Your task to perform on an android device: toggle data saver in the chrome app Image 0: 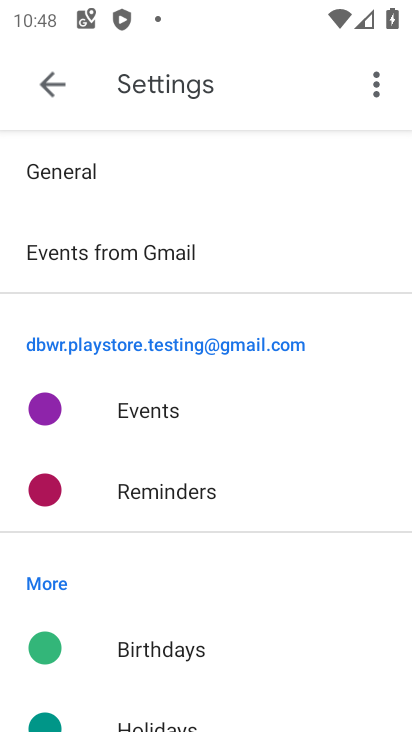
Step 0: press home button
Your task to perform on an android device: toggle data saver in the chrome app Image 1: 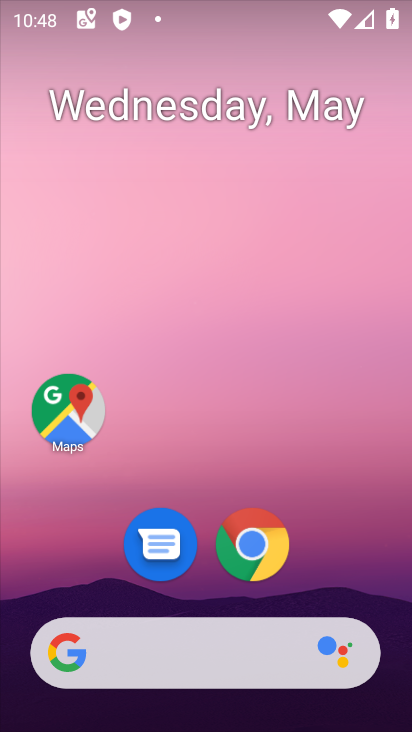
Step 1: drag from (310, 600) to (307, 80)
Your task to perform on an android device: toggle data saver in the chrome app Image 2: 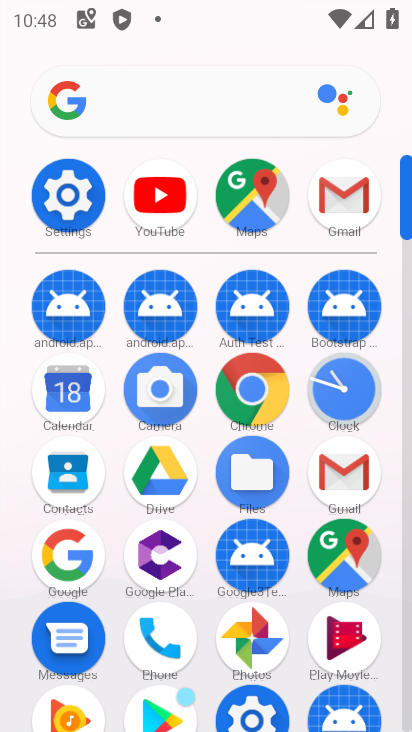
Step 2: click (236, 371)
Your task to perform on an android device: toggle data saver in the chrome app Image 3: 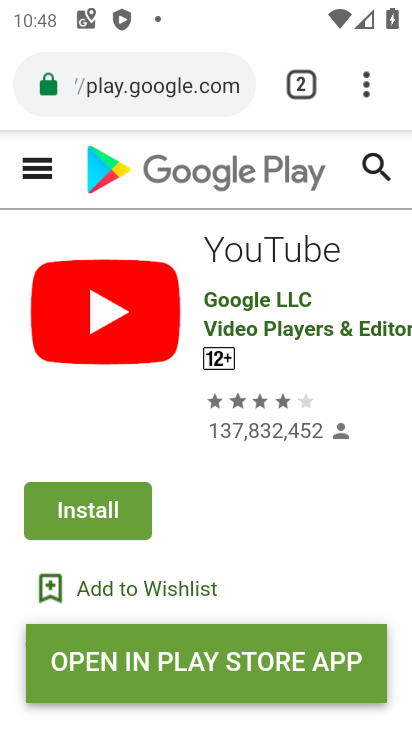
Step 3: click (371, 82)
Your task to perform on an android device: toggle data saver in the chrome app Image 4: 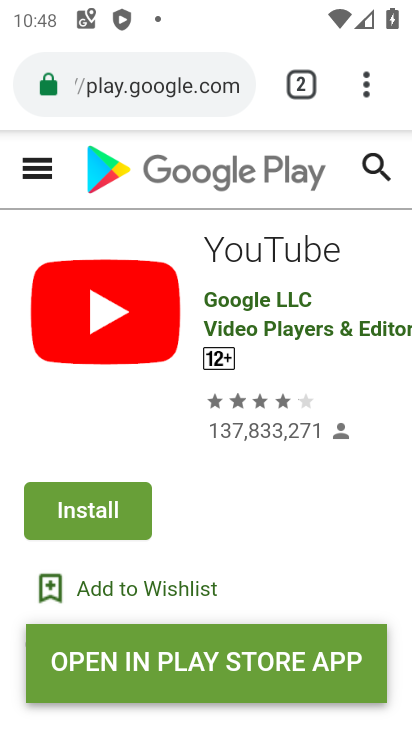
Step 4: drag from (370, 88) to (96, 589)
Your task to perform on an android device: toggle data saver in the chrome app Image 5: 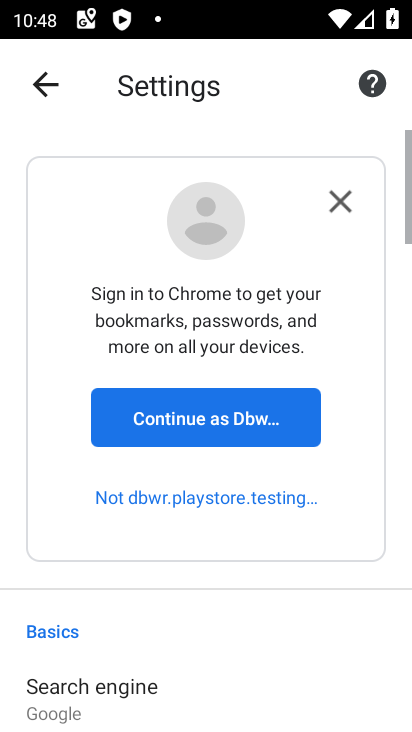
Step 5: drag from (185, 636) to (227, 211)
Your task to perform on an android device: toggle data saver in the chrome app Image 6: 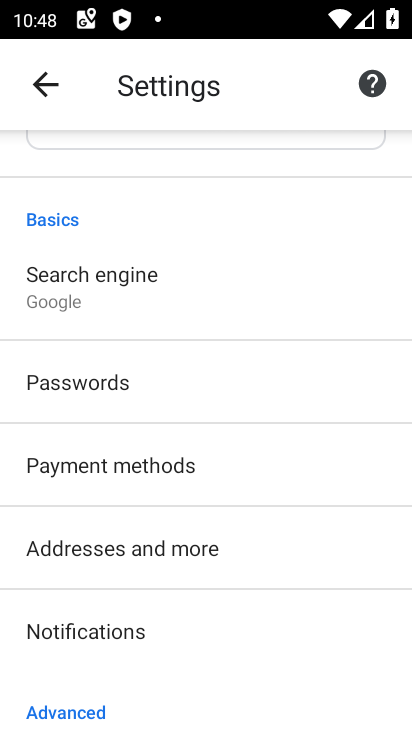
Step 6: drag from (235, 667) to (317, 287)
Your task to perform on an android device: toggle data saver in the chrome app Image 7: 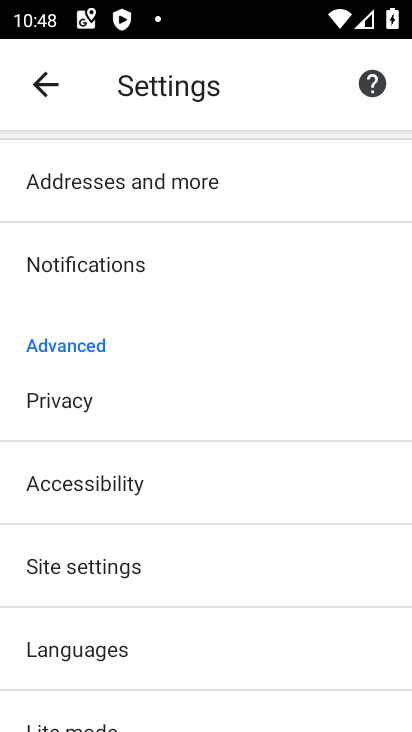
Step 7: click (188, 589)
Your task to perform on an android device: toggle data saver in the chrome app Image 8: 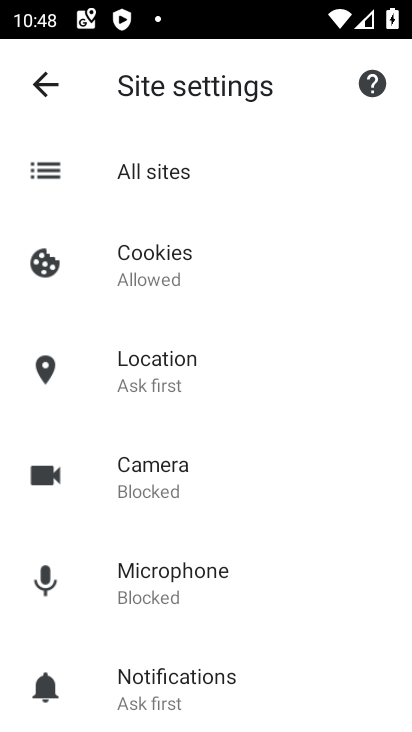
Step 8: press back button
Your task to perform on an android device: toggle data saver in the chrome app Image 9: 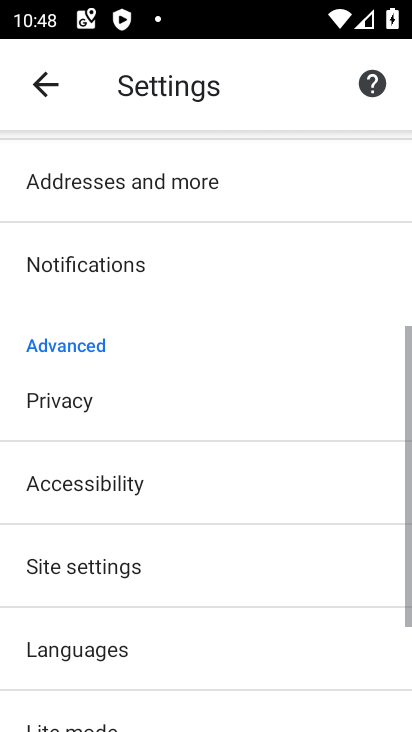
Step 9: drag from (263, 688) to (371, 310)
Your task to perform on an android device: toggle data saver in the chrome app Image 10: 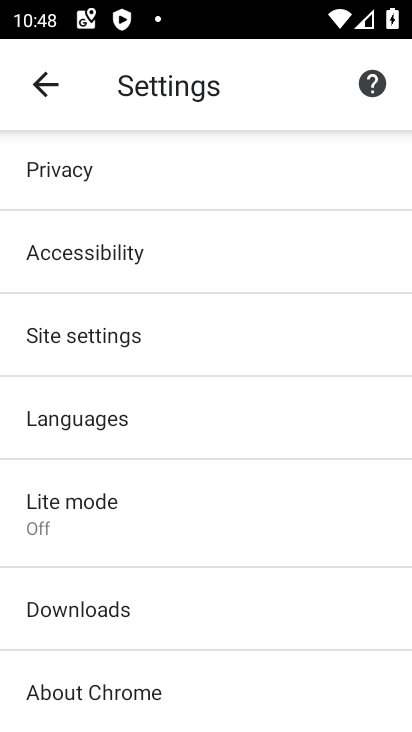
Step 10: click (255, 513)
Your task to perform on an android device: toggle data saver in the chrome app Image 11: 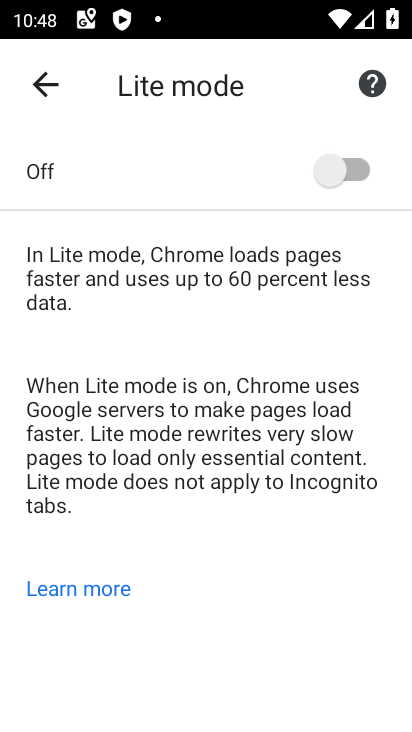
Step 11: click (283, 447)
Your task to perform on an android device: toggle data saver in the chrome app Image 12: 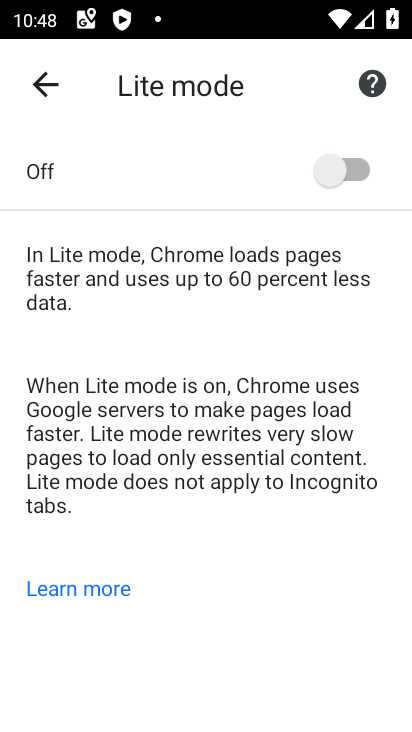
Step 12: click (369, 172)
Your task to perform on an android device: toggle data saver in the chrome app Image 13: 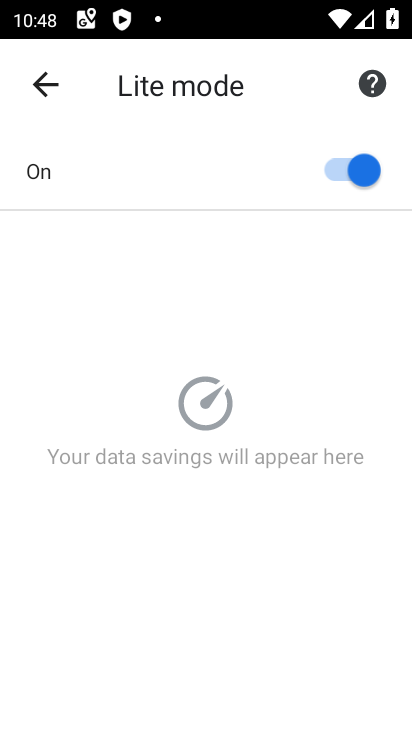
Step 13: task complete